Your task to perform on an android device: Open maps Image 0: 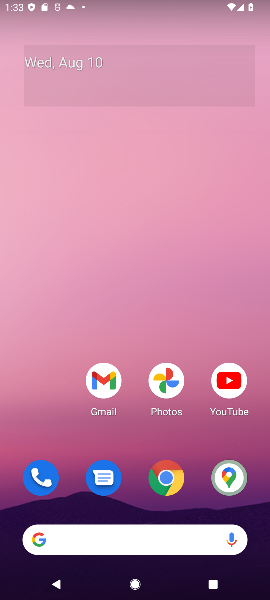
Step 0: click (45, 412)
Your task to perform on an android device: Open maps Image 1: 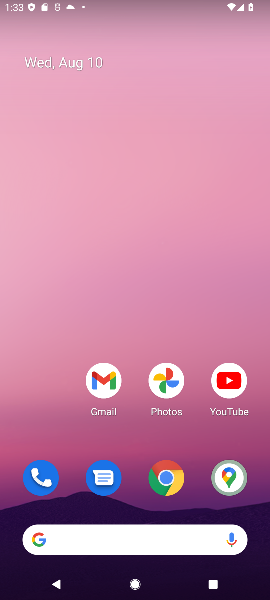
Step 1: click (231, 483)
Your task to perform on an android device: Open maps Image 2: 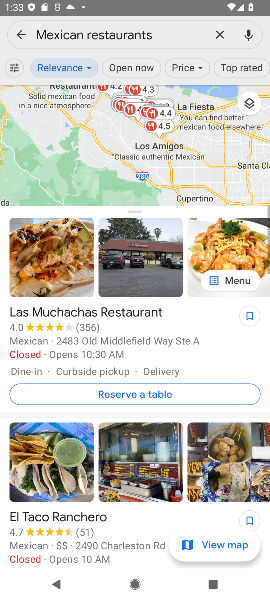
Step 2: task complete